Your task to perform on an android device: Open battery settings Image 0: 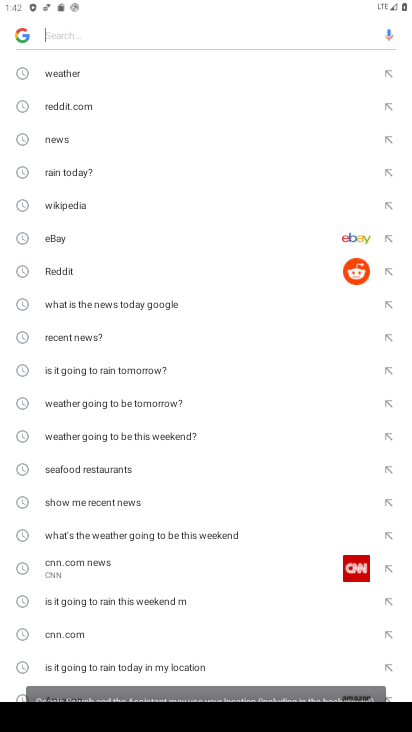
Step 0: press home button
Your task to perform on an android device: Open battery settings Image 1: 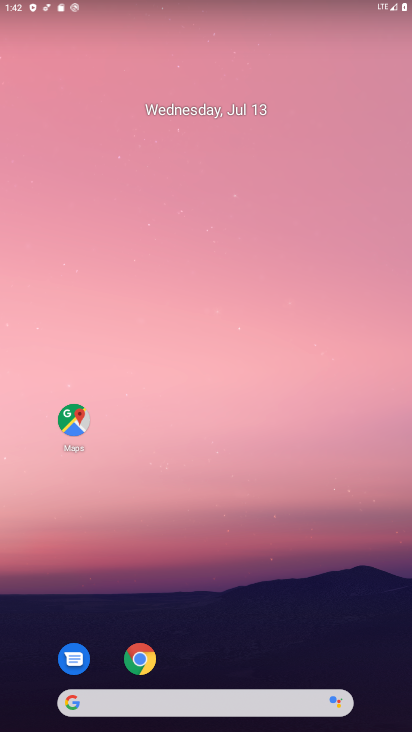
Step 1: drag from (387, 687) to (329, 101)
Your task to perform on an android device: Open battery settings Image 2: 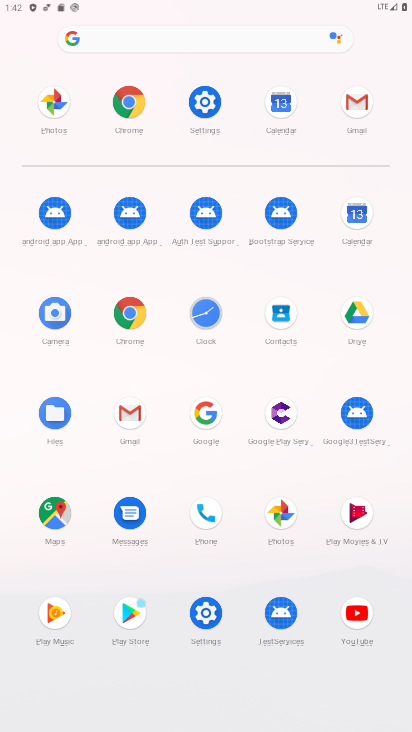
Step 2: click (207, 610)
Your task to perform on an android device: Open battery settings Image 3: 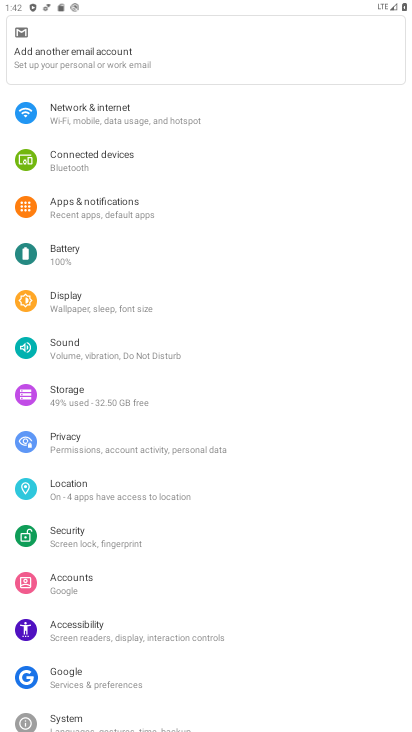
Step 3: click (48, 249)
Your task to perform on an android device: Open battery settings Image 4: 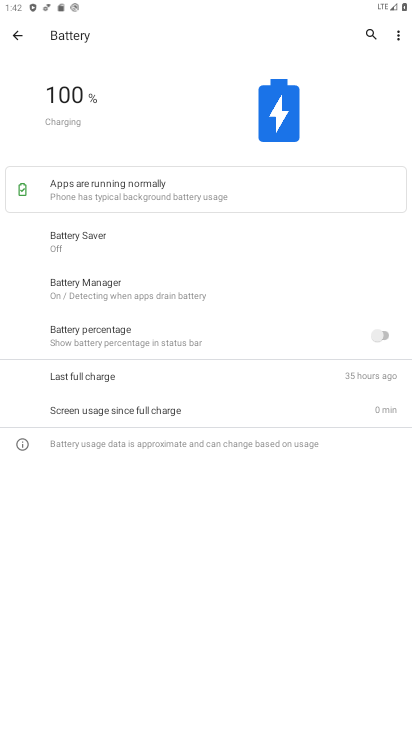
Step 4: task complete